Your task to perform on an android device: turn off wifi Image 0: 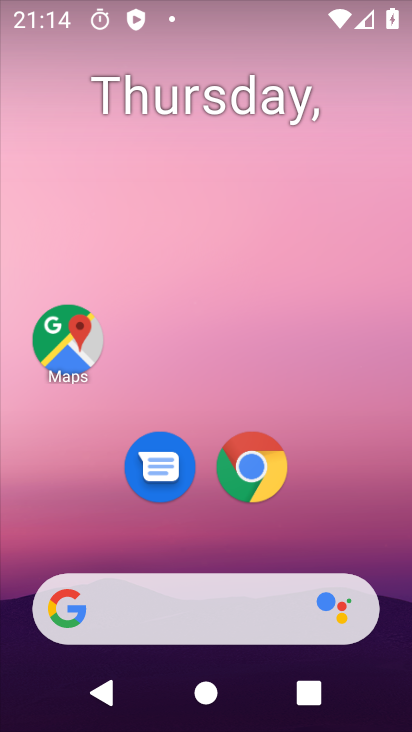
Step 0: drag from (269, 4) to (269, 529)
Your task to perform on an android device: turn off wifi Image 1: 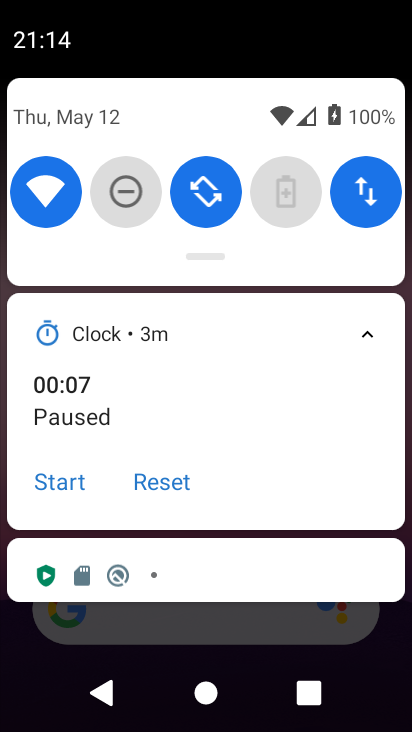
Step 1: click (51, 195)
Your task to perform on an android device: turn off wifi Image 2: 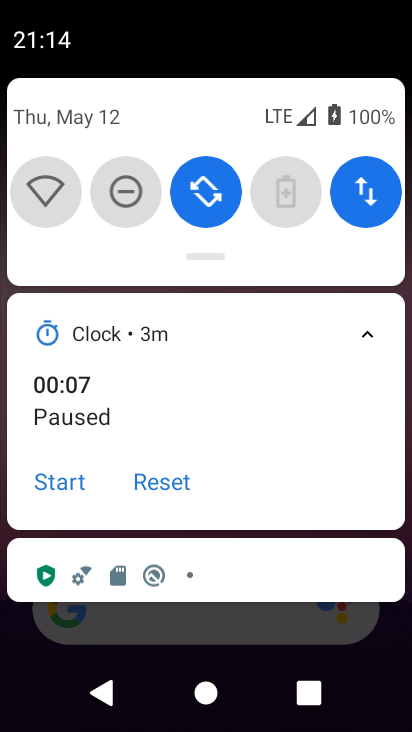
Step 2: task complete